Your task to perform on an android device: Open CNN.com Image 0: 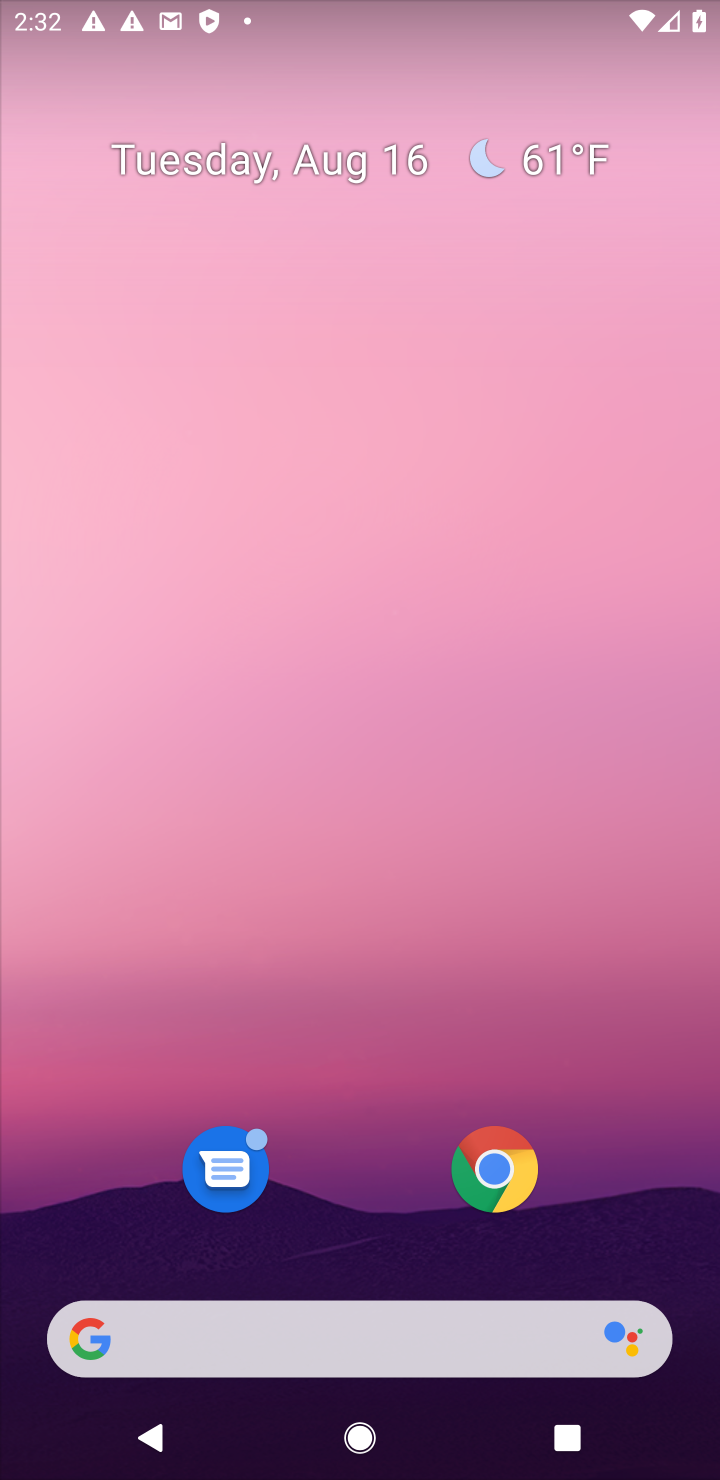
Step 0: click (486, 1176)
Your task to perform on an android device: Open CNN.com Image 1: 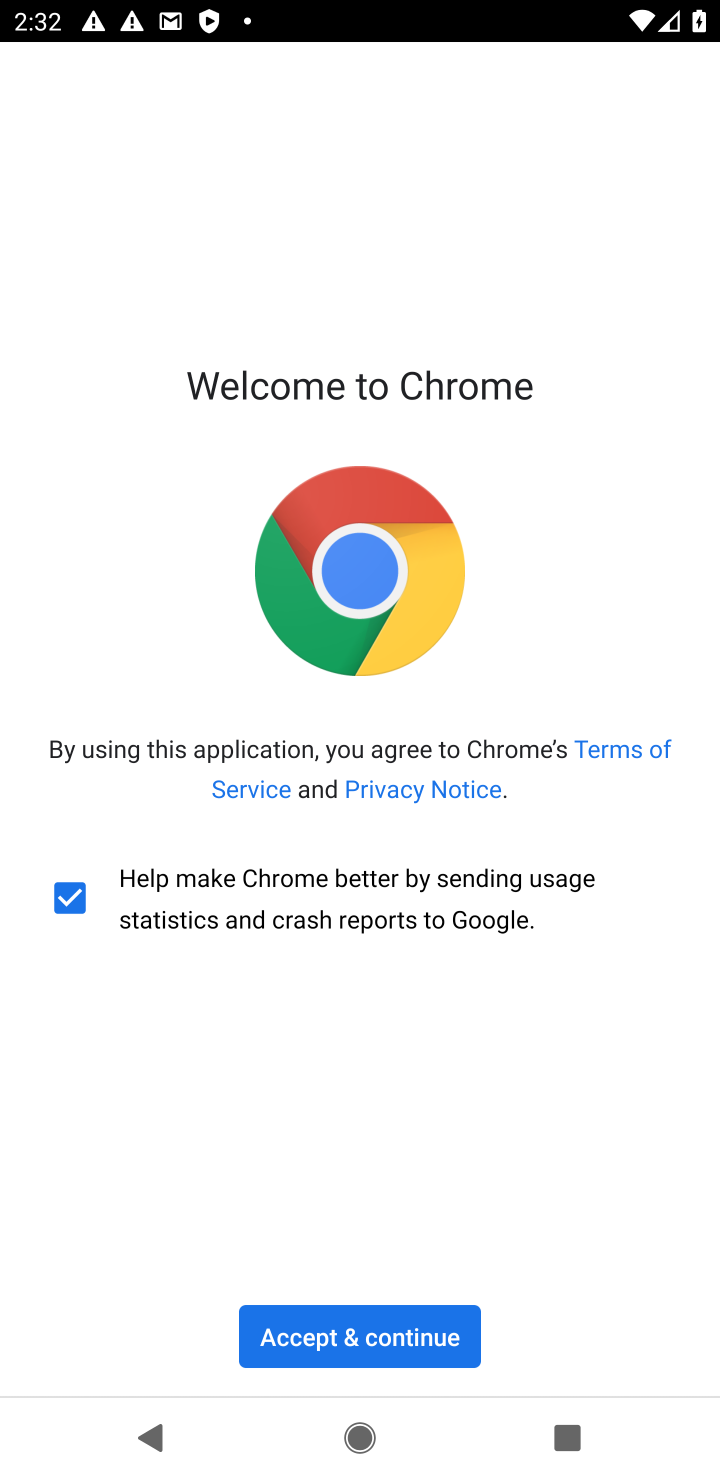
Step 1: click (341, 1331)
Your task to perform on an android device: Open CNN.com Image 2: 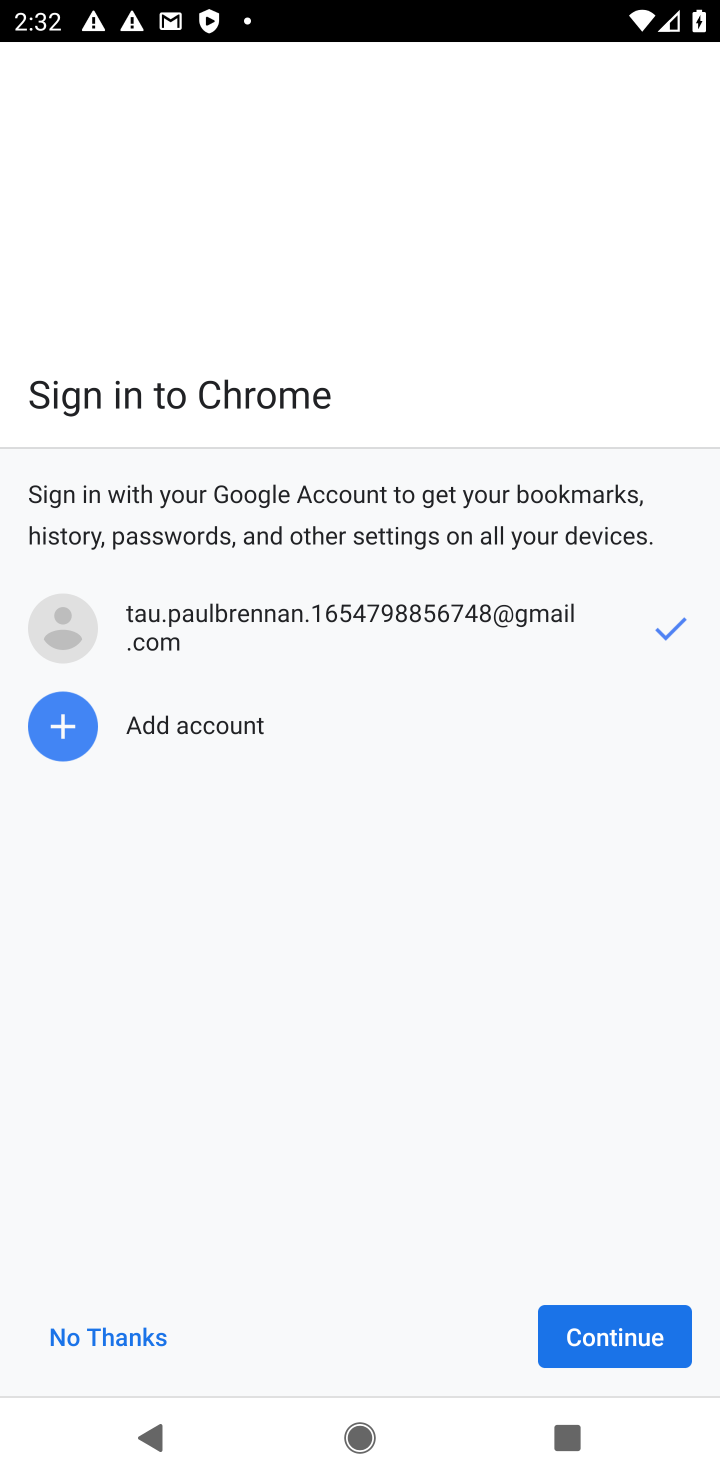
Step 2: click (629, 1337)
Your task to perform on an android device: Open CNN.com Image 3: 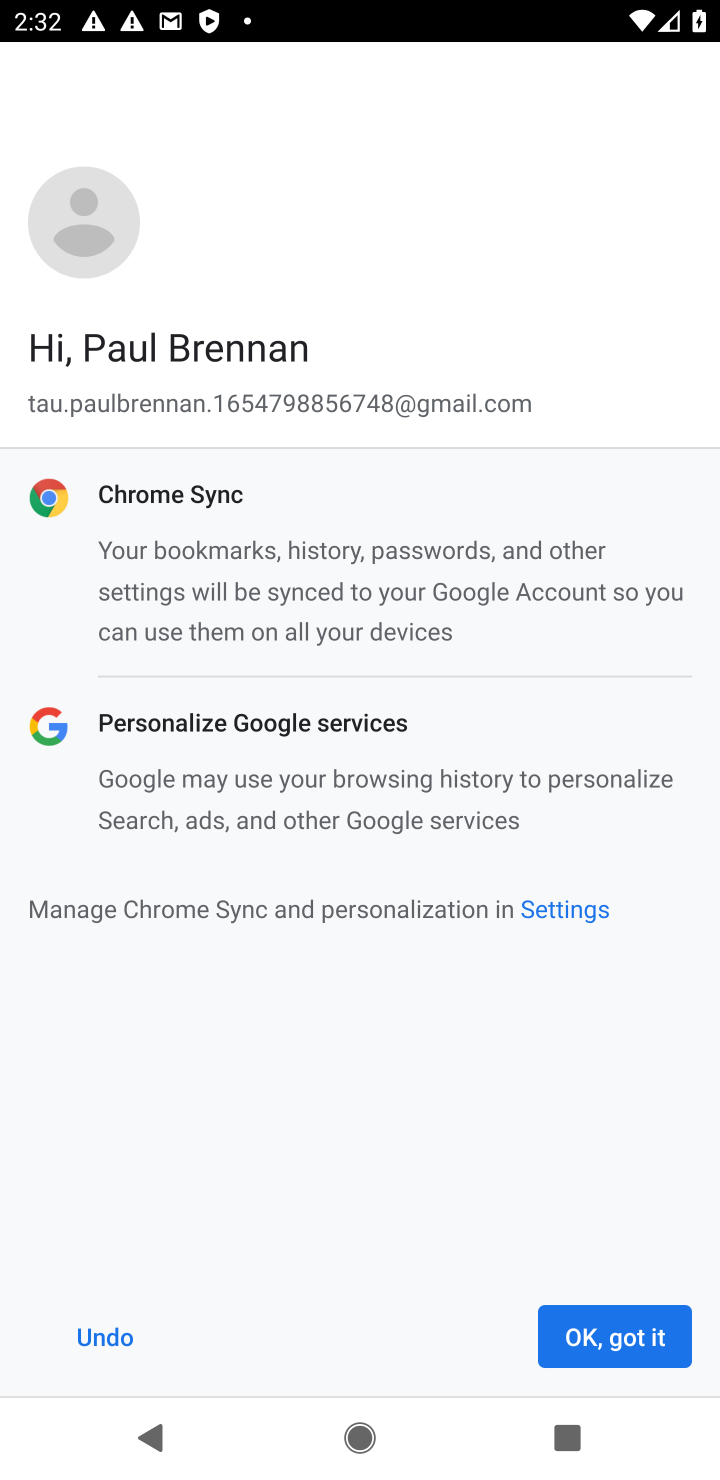
Step 3: click (631, 1337)
Your task to perform on an android device: Open CNN.com Image 4: 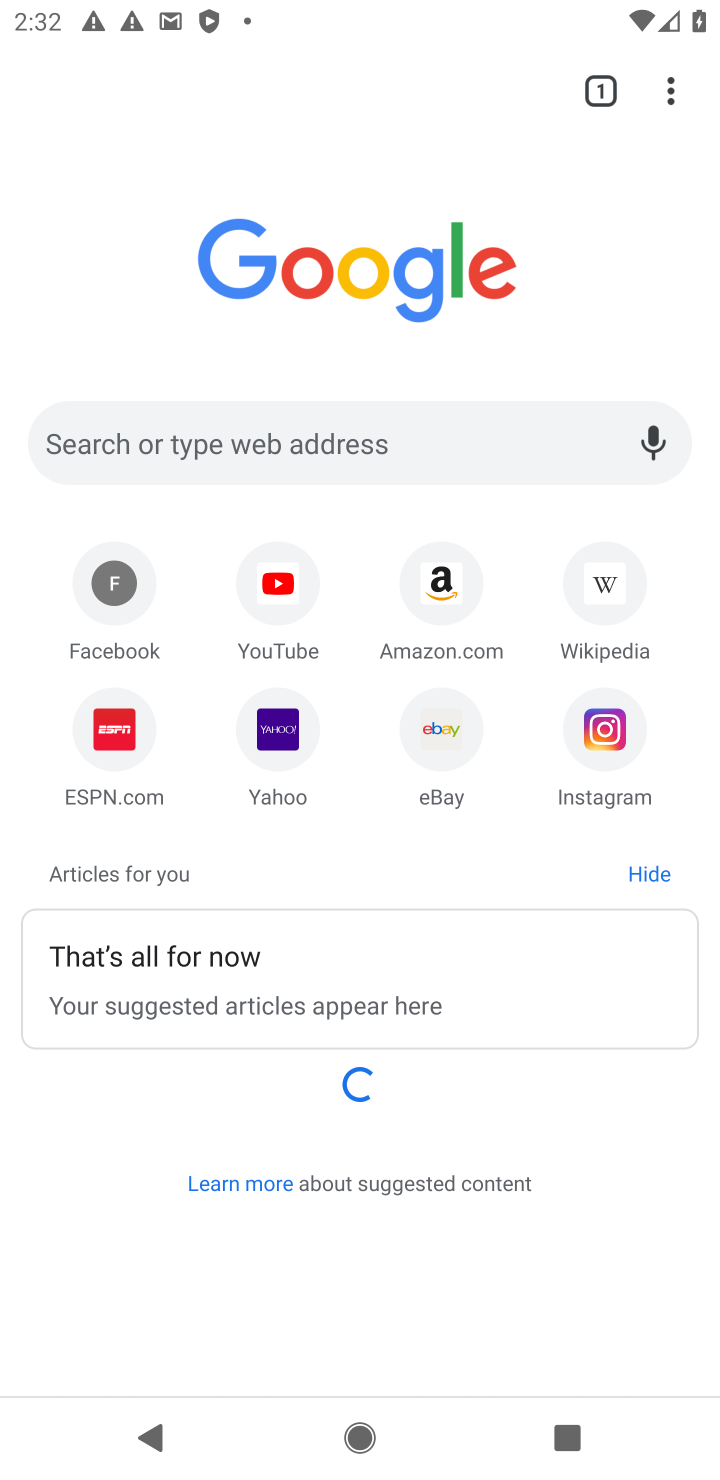
Step 4: click (171, 443)
Your task to perform on an android device: Open CNN.com Image 5: 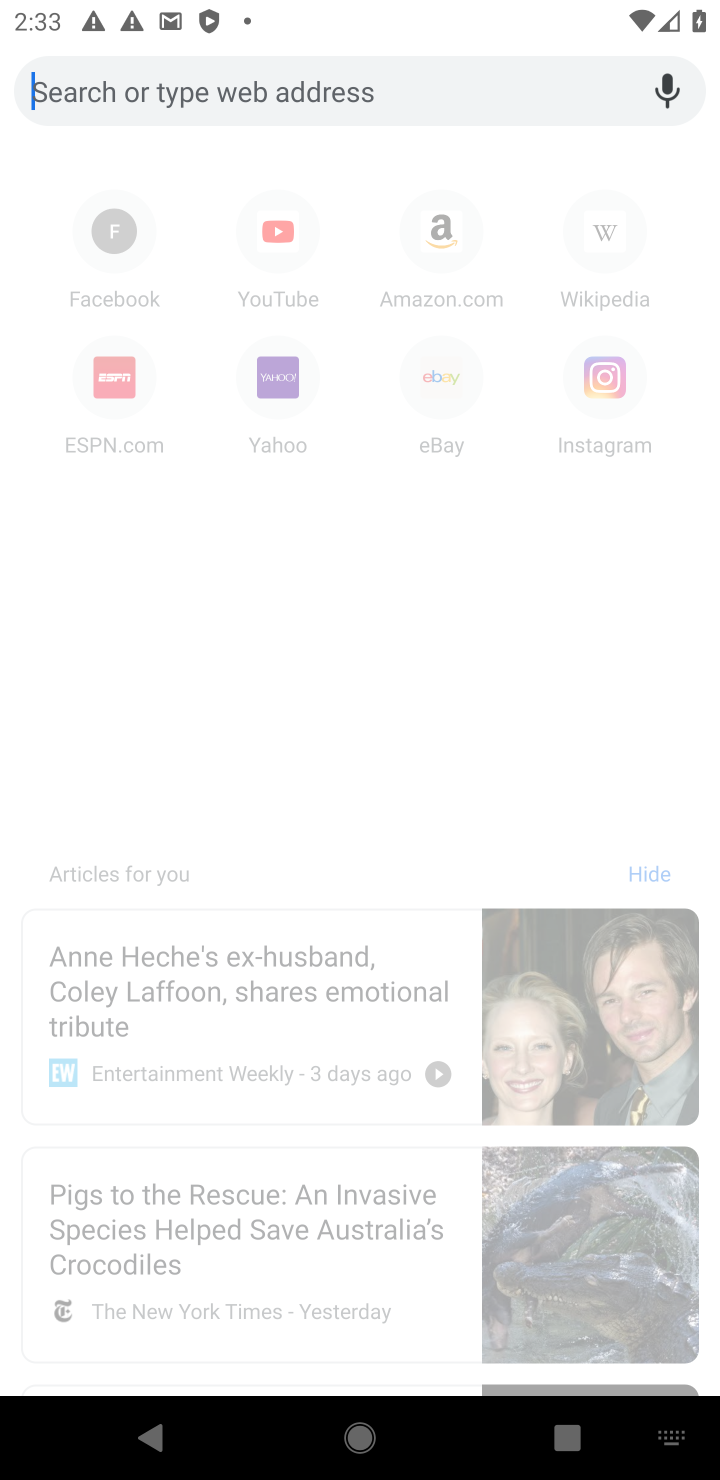
Step 5: type "CNN.com"
Your task to perform on an android device: Open CNN.com Image 6: 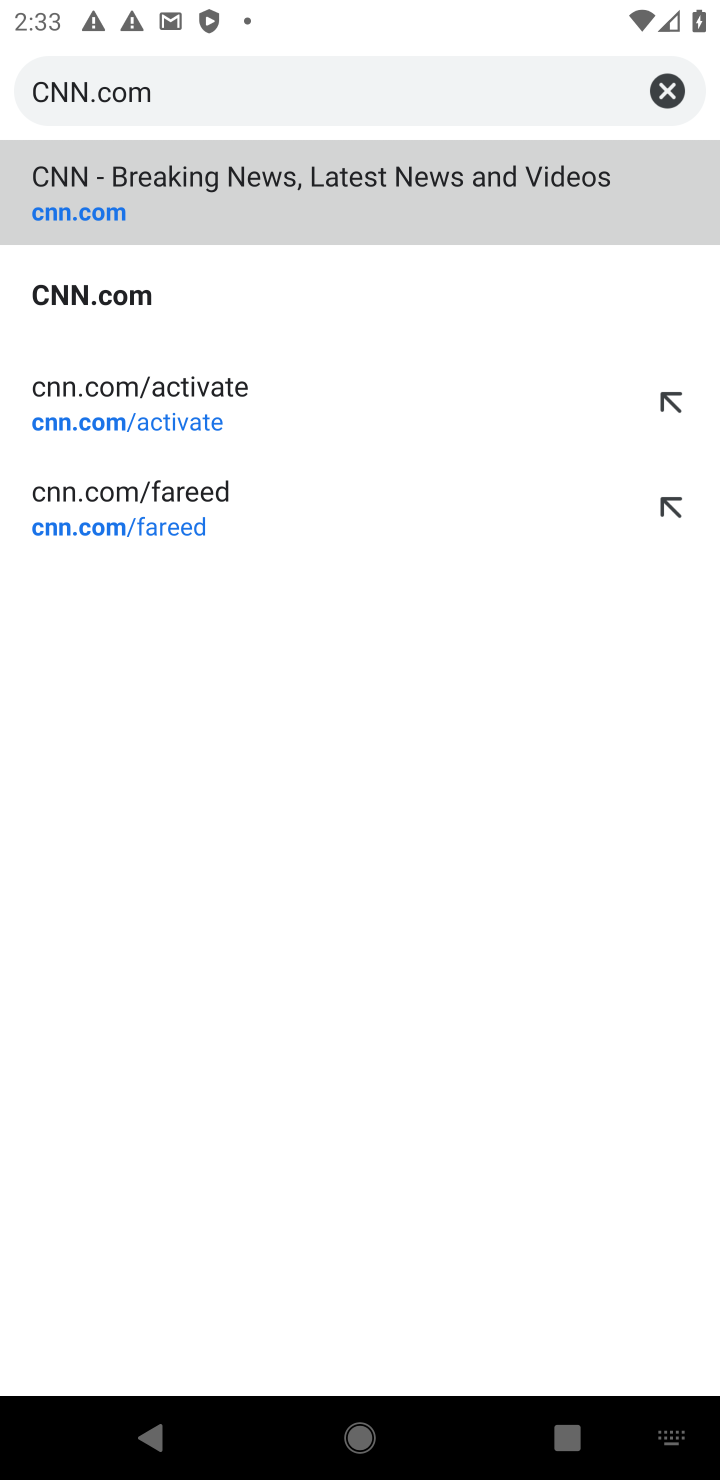
Step 6: click (200, 183)
Your task to perform on an android device: Open CNN.com Image 7: 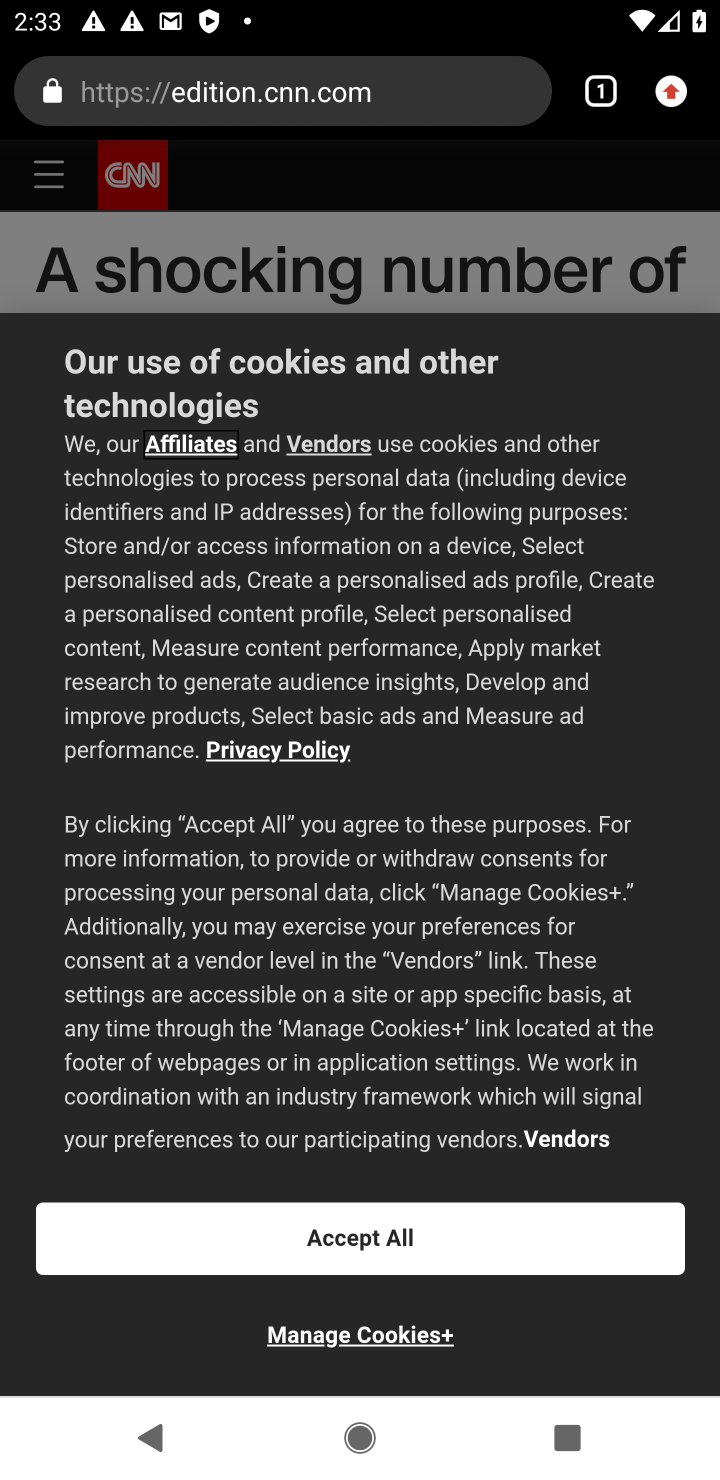
Step 7: click (384, 1232)
Your task to perform on an android device: Open CNN.com Image 8: 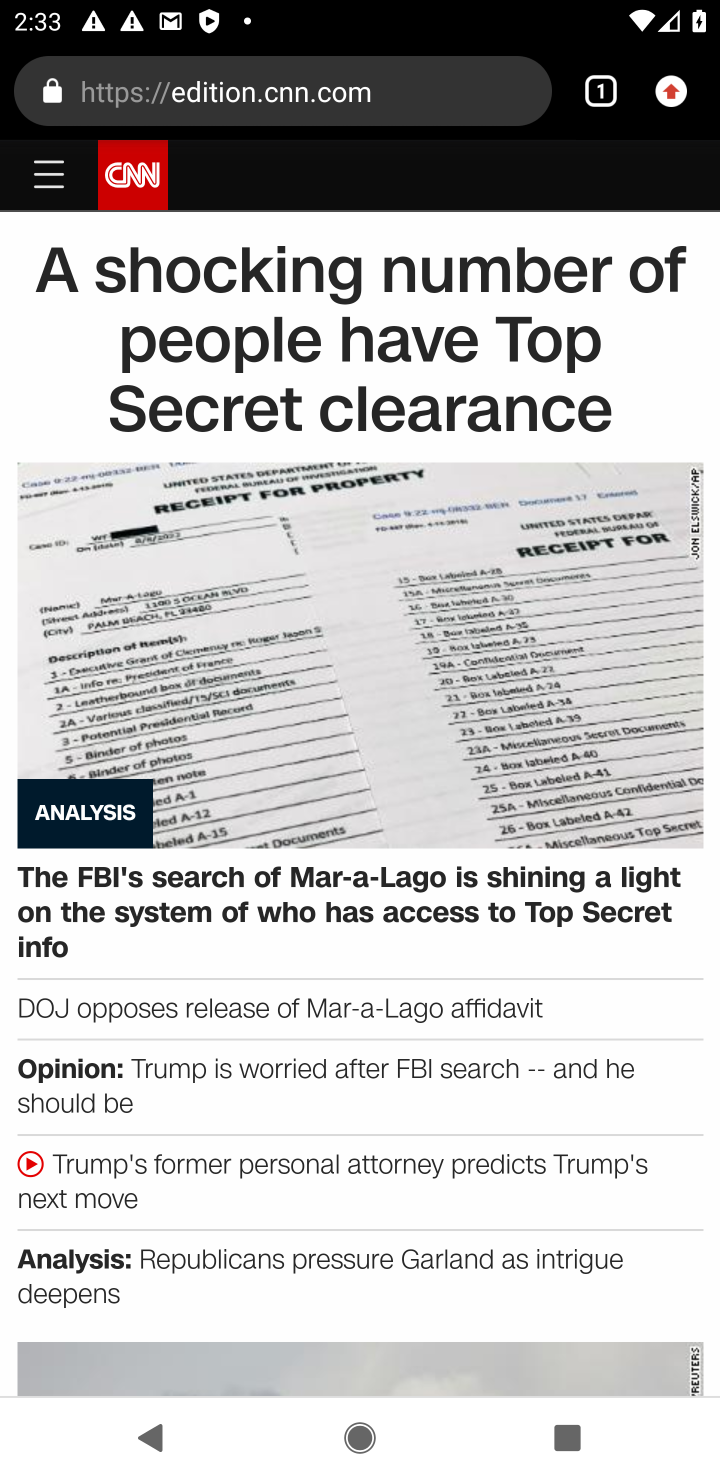
Step 8: task complete